Your task to perform on an android device: Go to ESPN.com Image 0: 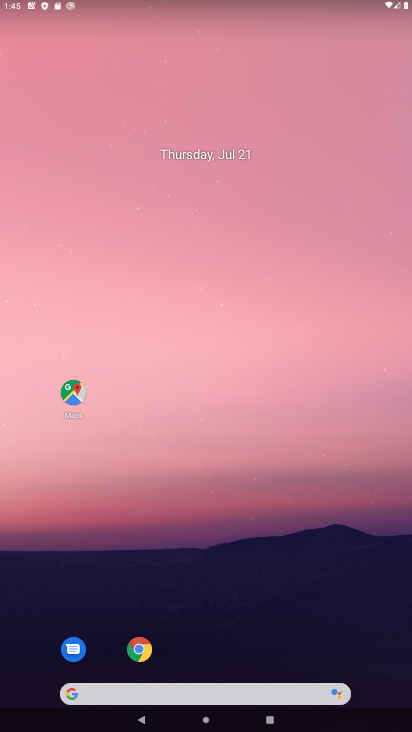
Step 0: click (139, 648)
Your task to perform on an android device: Go to ESPN.com Image 1: 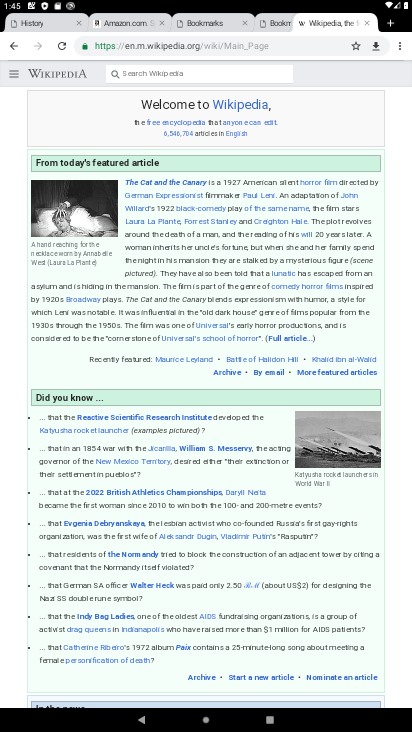
Step 1: click (396, 49)
Your task to perform on an android device: Go to ESPN.com Image 2: 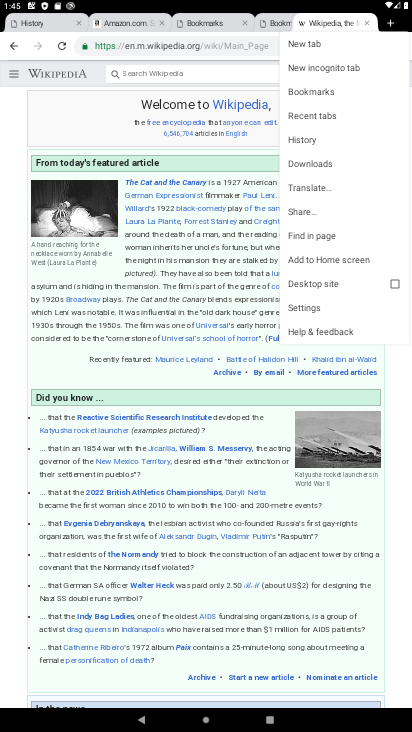
Step 2: click (297, 42)
Your task to perform on an android device: Go to ESPN.com Image 3: 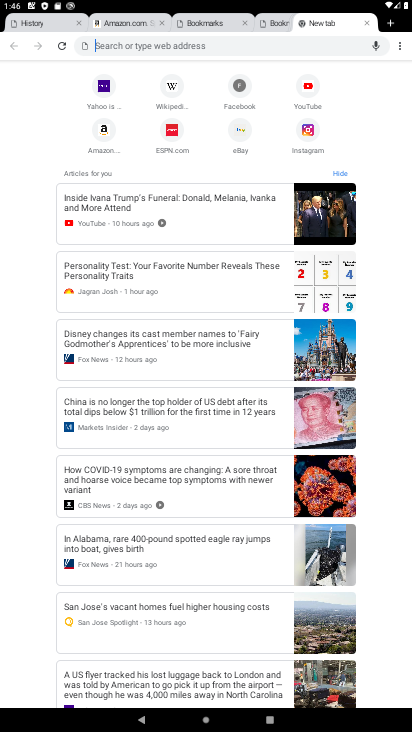
Step 3: click (176, 127)
Your task to perform on an android device: Go to ESPN.com Image 4: 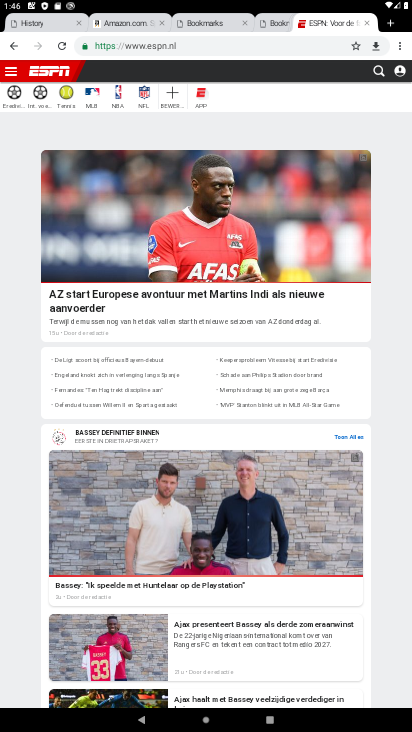
Step 4: task complete